Your task to perform on an android device: Go to Google Image 0: 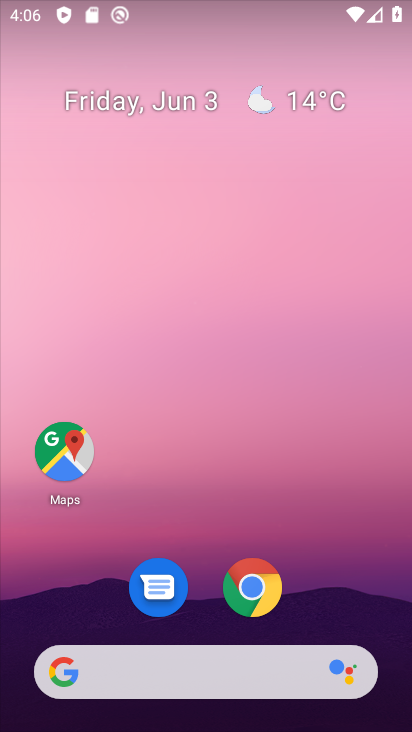
Step 0: drag from (200, 649) to (186, 184)
Your task to perform on an android device: Go to Google Image 1: 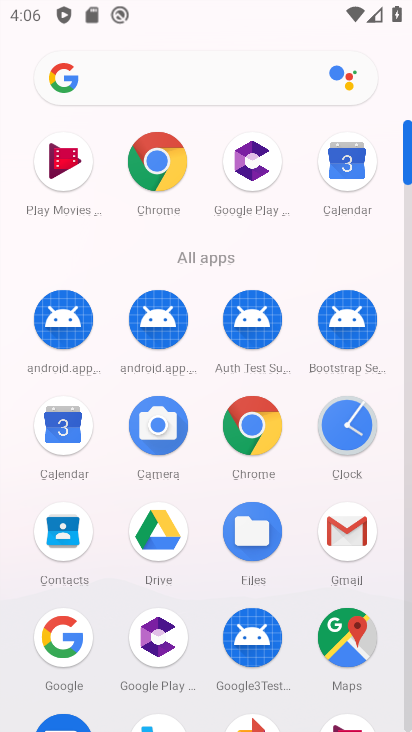
Step 1: click (70, 649)
Your task to perform on an android device: Go to Google Image 2: 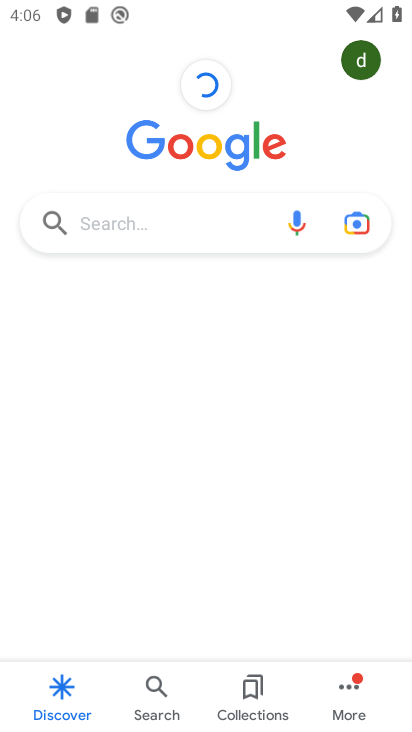
Step 2: task complete